Your task to perform on an android device: Open Yahoo.com Image 0: 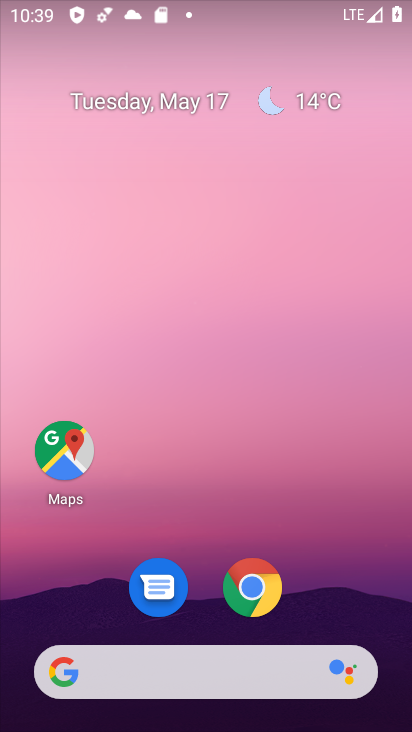
Step 0: click (250, 593)
Your task to perform on an android device: Open Yahoo.com Image 1: 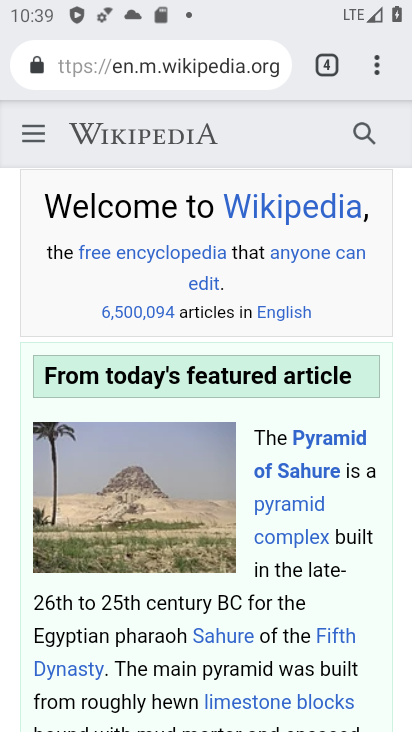
Step 1: click (320, 61)
Your task to perform on an android device: Open Yahoo.com Image 2: 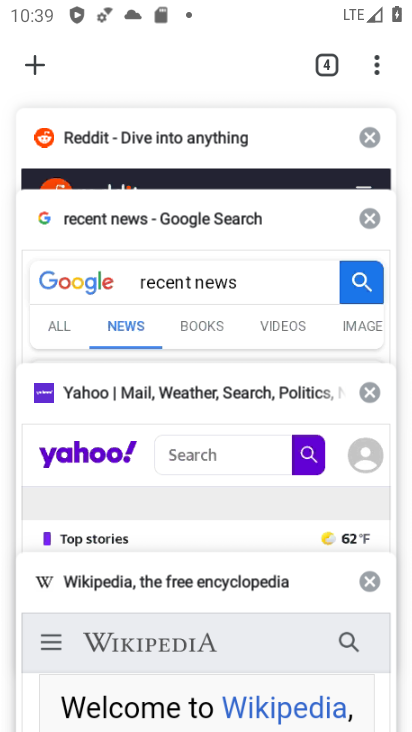
Step 2: click (134, 438)
Your task to perform on an android device: Open Yahoo.com Image 3: 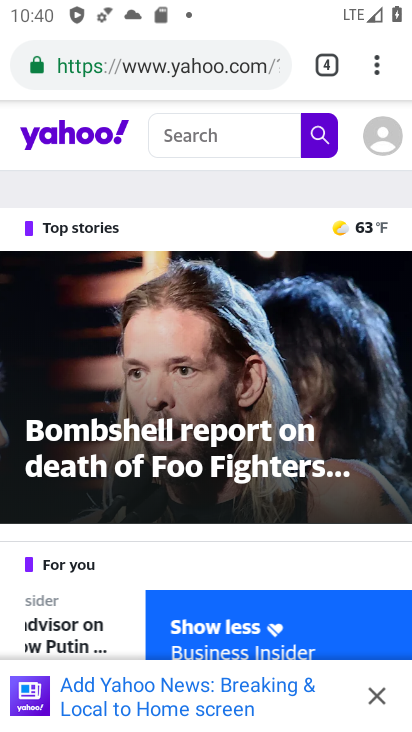
Step 3: task complete